Your task to perform on an android device: check google app version Image 0: 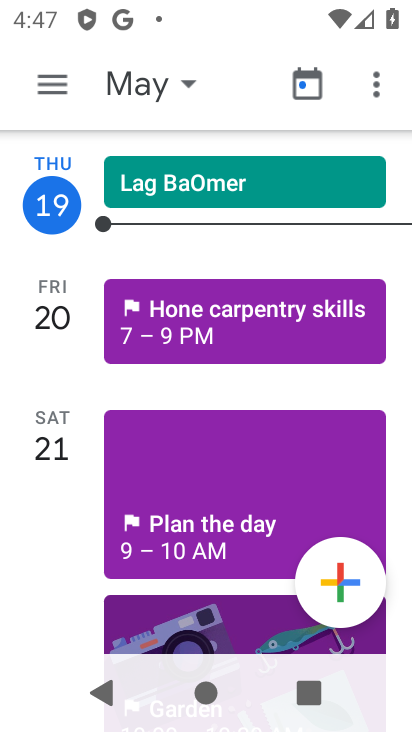
Step 0: press home button
Your task to perform on an android device: check google app version Image 1: 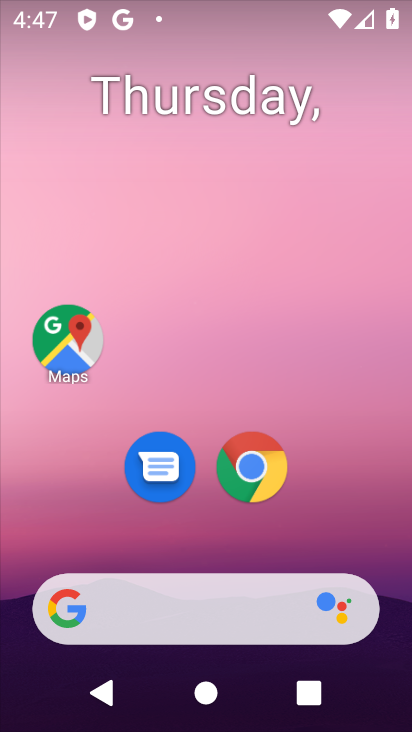
Step 1: drag from (383, 454) to (319, 55)
Your task to perform on an android device: check google app version Image 2: 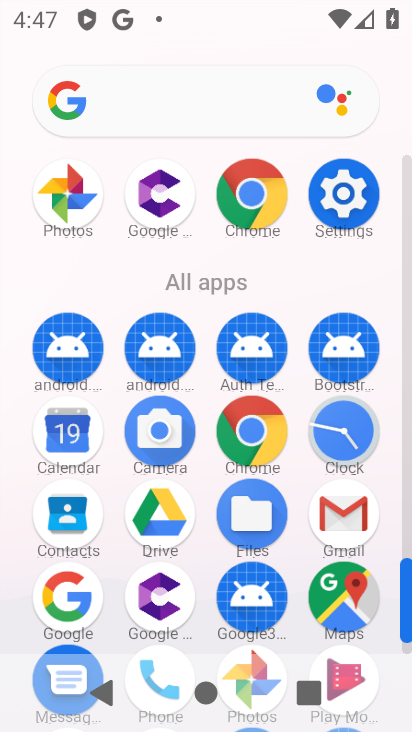
Step 2: click (322, 220)
Your task to perform on an android device: check google app version Image 3: 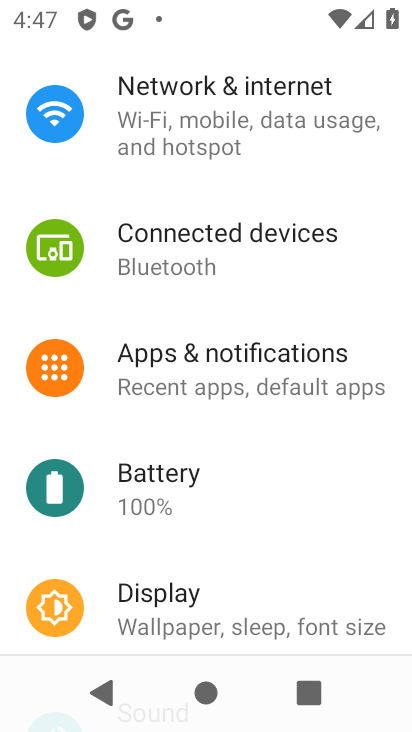
Step 3: press back button
Your task to perform on an android device: check google app version Image 4: 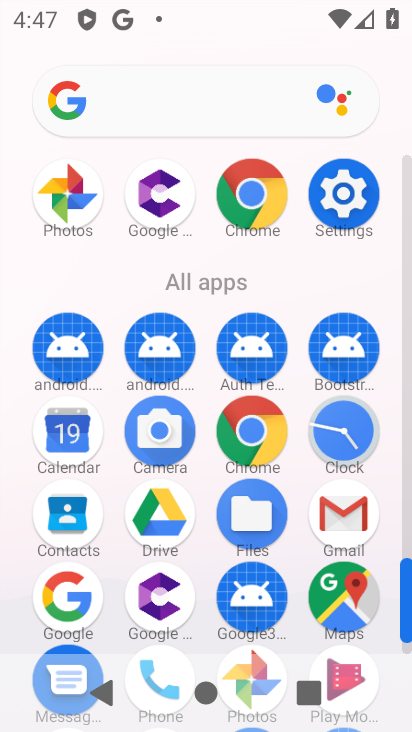
Step 4: drag from (381, 472) to (364, 103)
Your task to perform on an android device: check google app version Image 5: 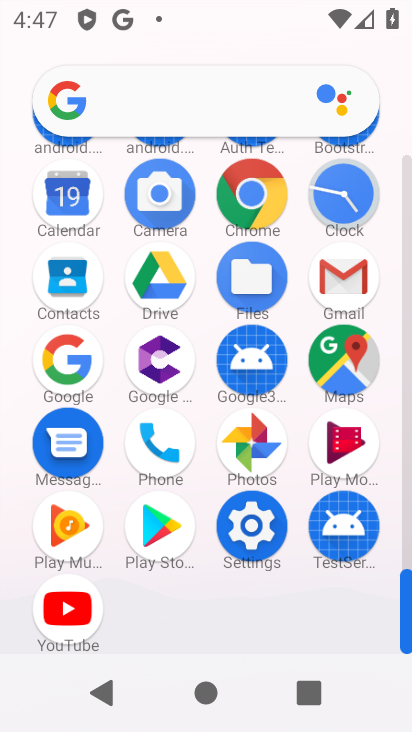
Step 5: click (83, 368)
Your task to perform on an android device: check google app version Image 6: 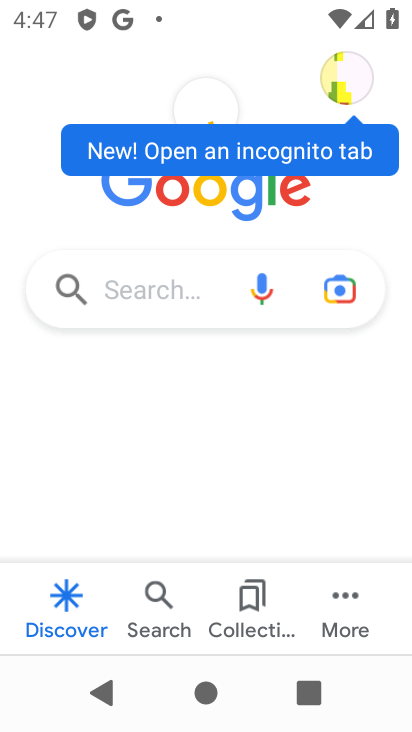
Step 6: click (344, 605)
Your task to perform on an android device: check google app version Image 7: 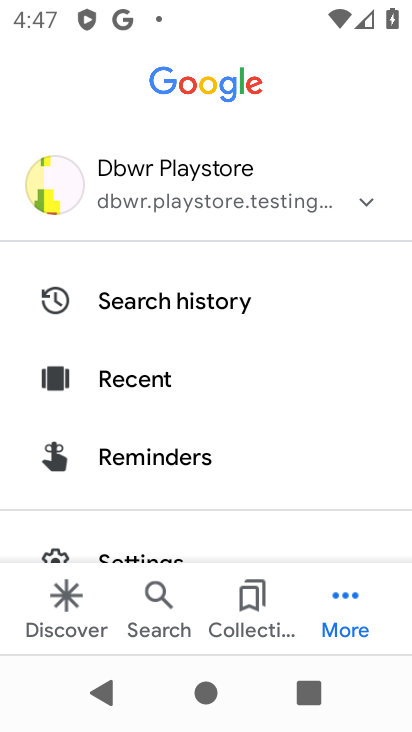
Step 7: drag from (275, 492) to (276, 44)
Your task to perform on an android device: check google app version Image 8: 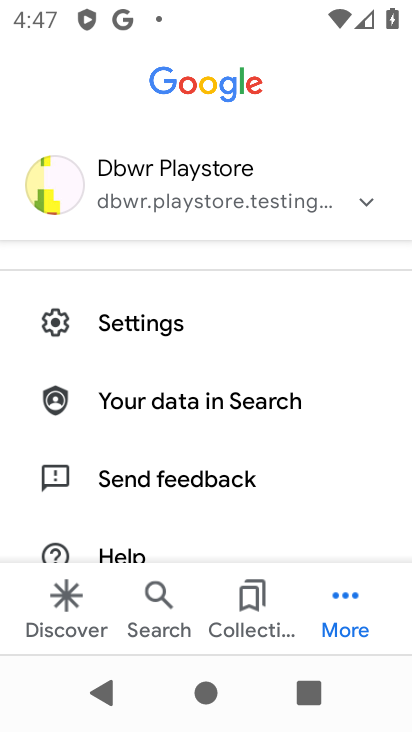
Step 8: drag from (275, 553) to (293, 201)
Your task to perform on an android device: check google app version Image 9: 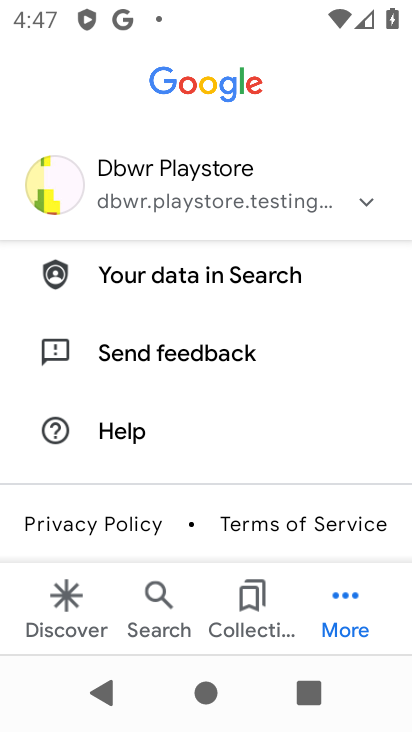
Step 9: drag from (310, 338) to (367, 541)
Your task to perform on an android device: check google app version Image 10: 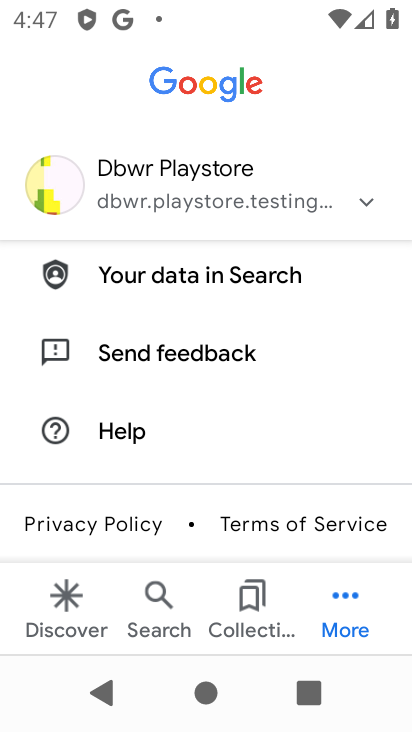
Step 10: drag from (236, 272) to (309, 514)
Your task to perform on an android device: check google app version Image 11: 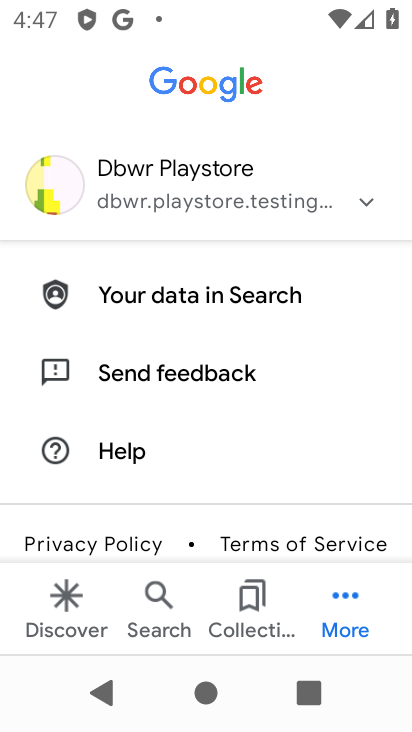
Step 11: drag from (246, 261) to (300, 509)
Your task to perform on an android device: check google app version Image 12: 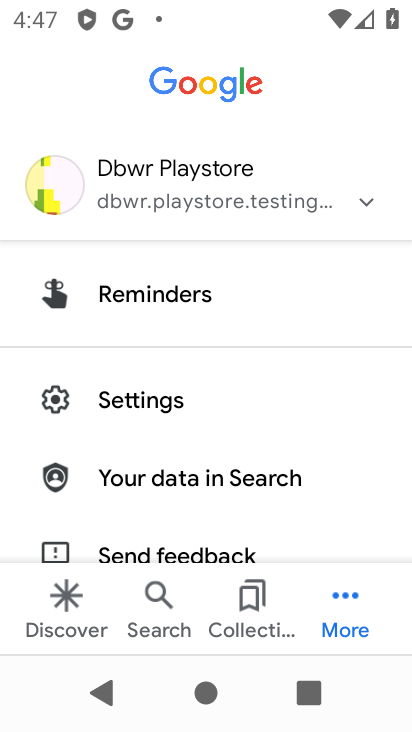
Step 12: click (109, 393)
Your task to perform on an android device: check google app version Image 13: 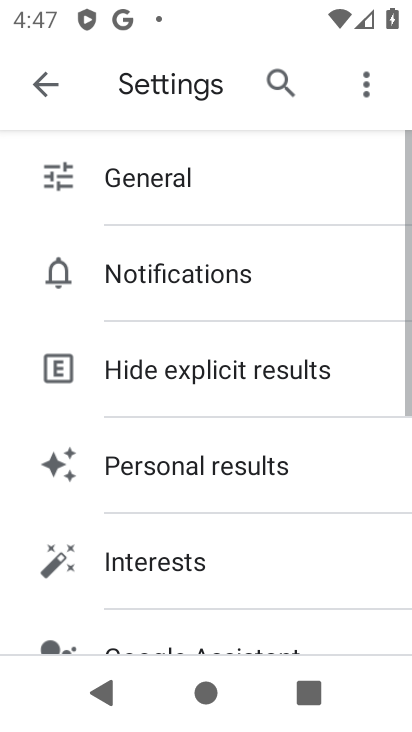
Step 13: drag from (204, 551) to (142, 178)
Your task to perform on an android device: check google app version Image 14: 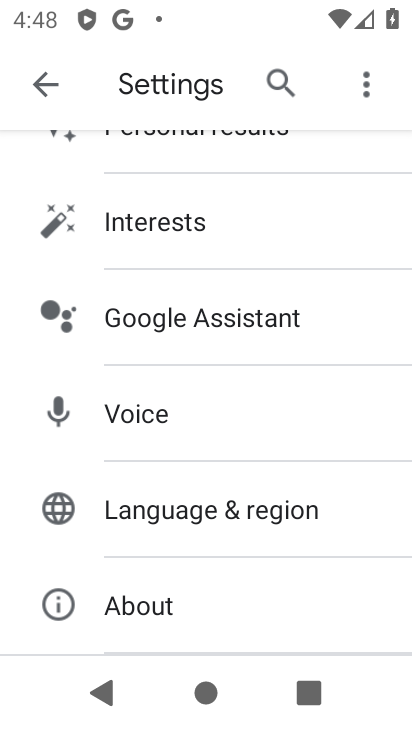
Step 14: drag from (142, 595) to (89, 196)
Your task to perform on an android device: check google app version Image 15: 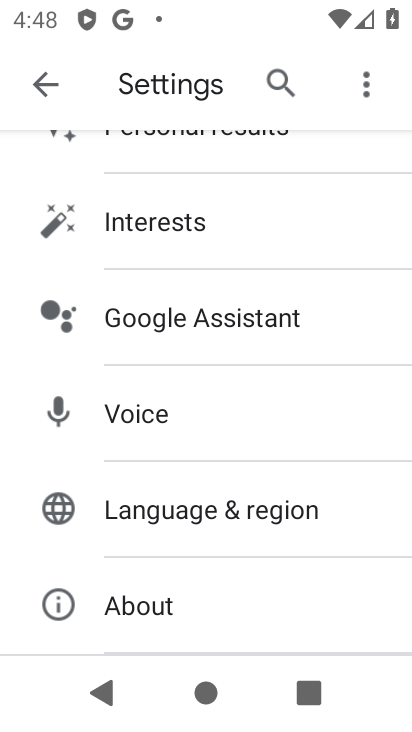
Step 15: click (153, 613)
Your task to perform on an android device: check google app version Image 16: 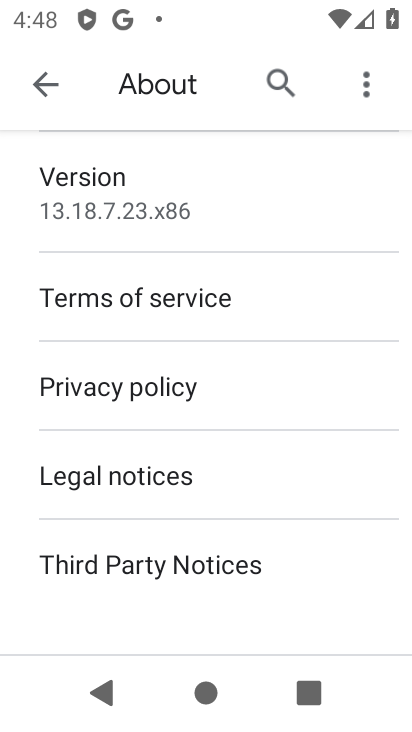
Step 16: click (80, 200)
Your task to perform on an android device: check google app version Image 17: 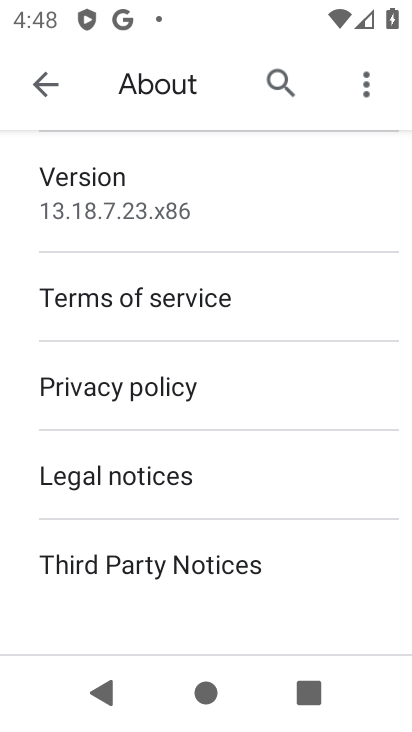
Step 17: click (80, 200)
Your task to perform on an android device: check google app version Image 18: 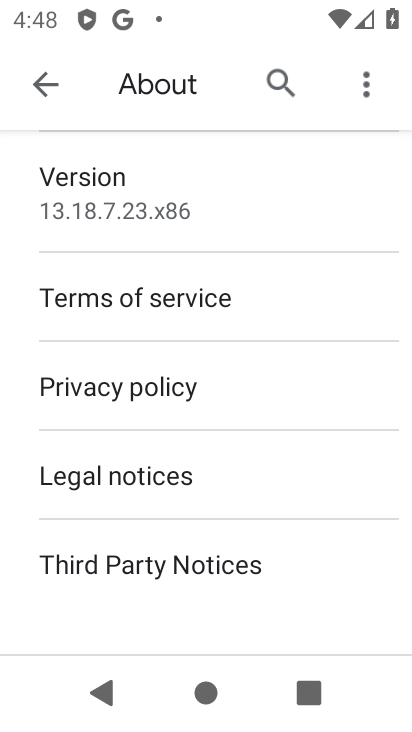
Step 18: task complete